Your task to perform on an android device: delete the emails in spam in the gmail app Image 0: 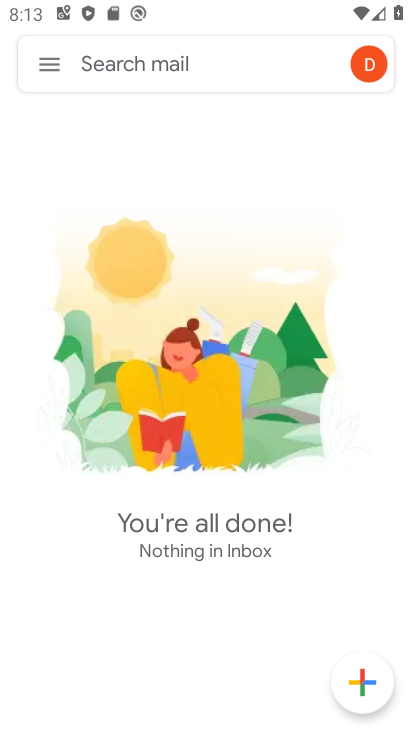
Step 0: click (43, 62)
Your task to perform on an android device: delete the emails in spam in the gmail app Image 1: 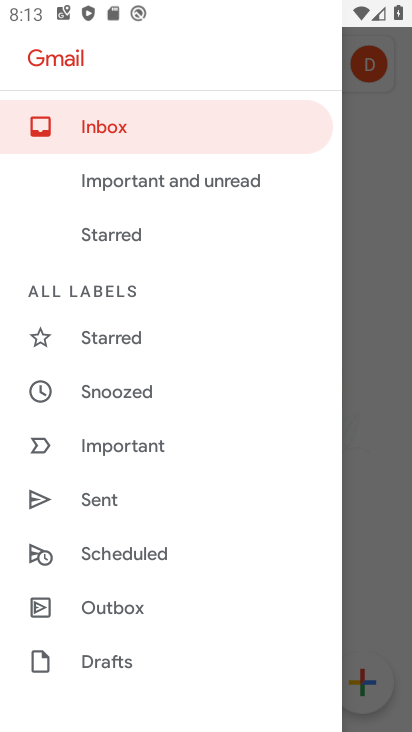
Step 1: drag from (187, 654) to (186, 221)
Your task to perform on an android device: delete the emails in spam in the gmail app Image 2: 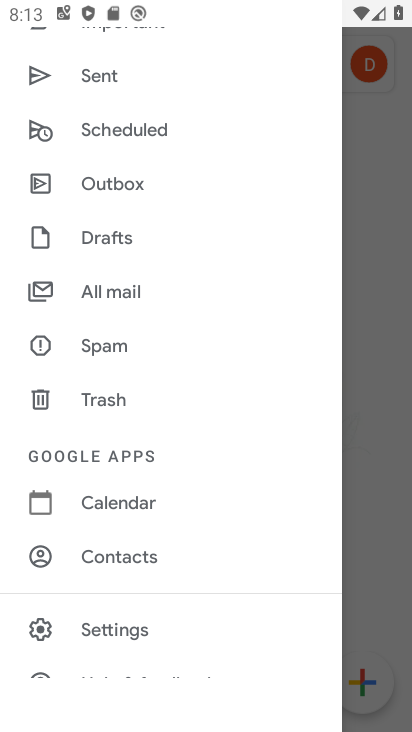
Step 2: click (124, 345)
Your task to perform on an android device: delete the emails in spam in the gmail app Image 3: 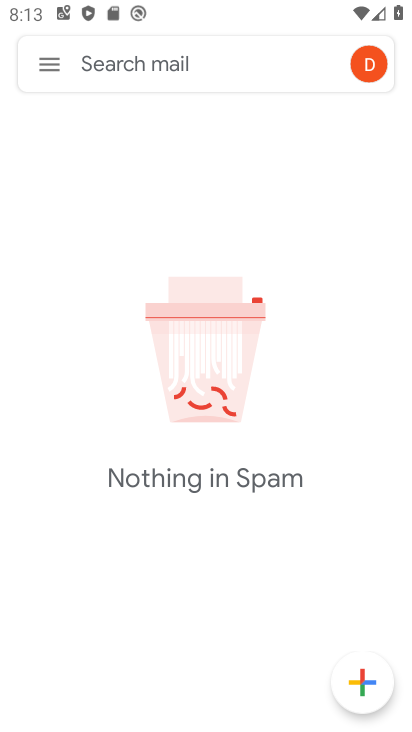
Step 3: task complete